Your task to perform on an android device: turn on wifi Image 0: 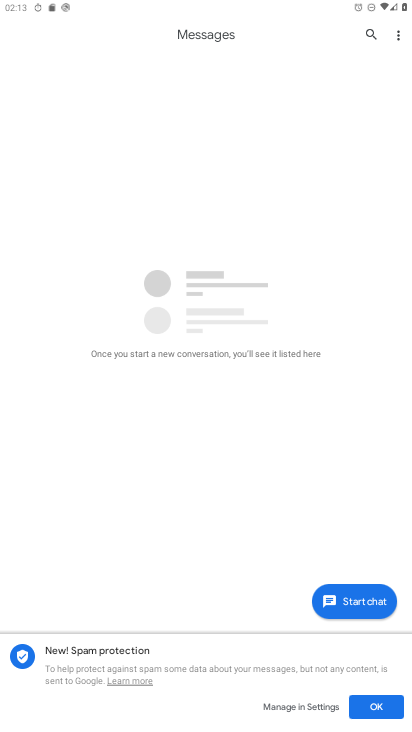
Step 0: press home button
Your task to perform on an android device: turn on wifi Image 1: 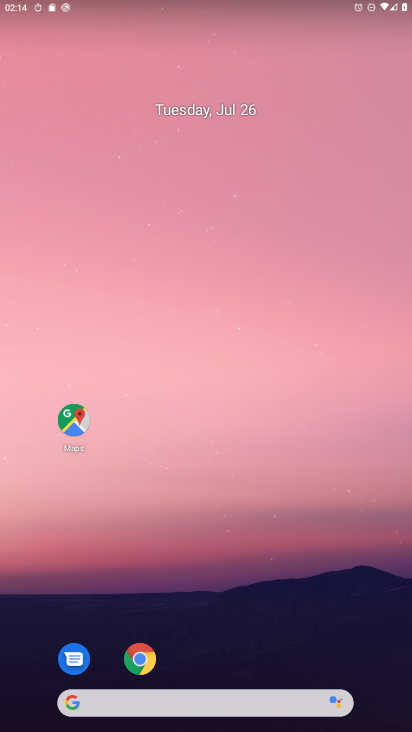
Step 1: task complete